Your task to perform on an android device: Search for "apple airpods pro" on walmart, select the first entry, add it to the cart, then select checkout. Image 0: 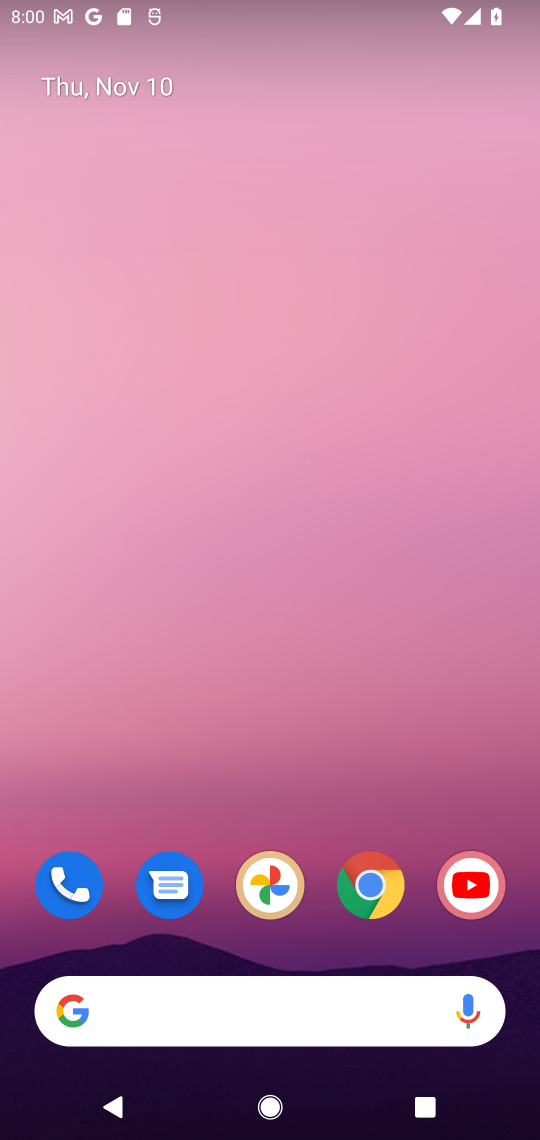
Step 0: click (377, 872)
Your task to perform on an android device: Search for "apple airpods pro" on walmart, select the first entry, add it to the cart, then select checkout. Image 1: 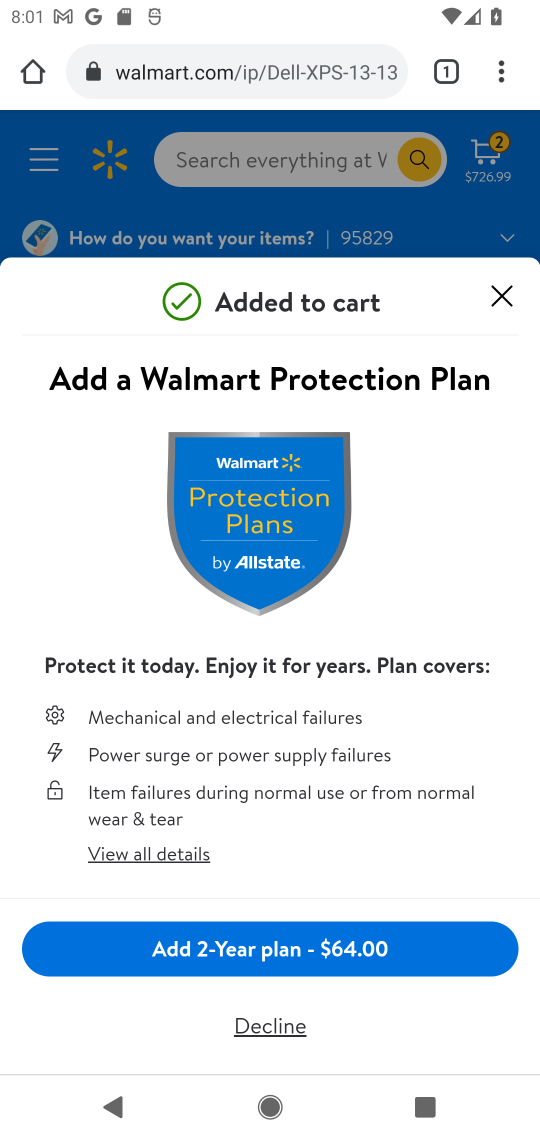
Step 1: click (501, 290)
Your task to perform on an android device: Search for "apple airpods pro" on walmart, select the first entry, add it to the cart, then select checkout. Image 2: 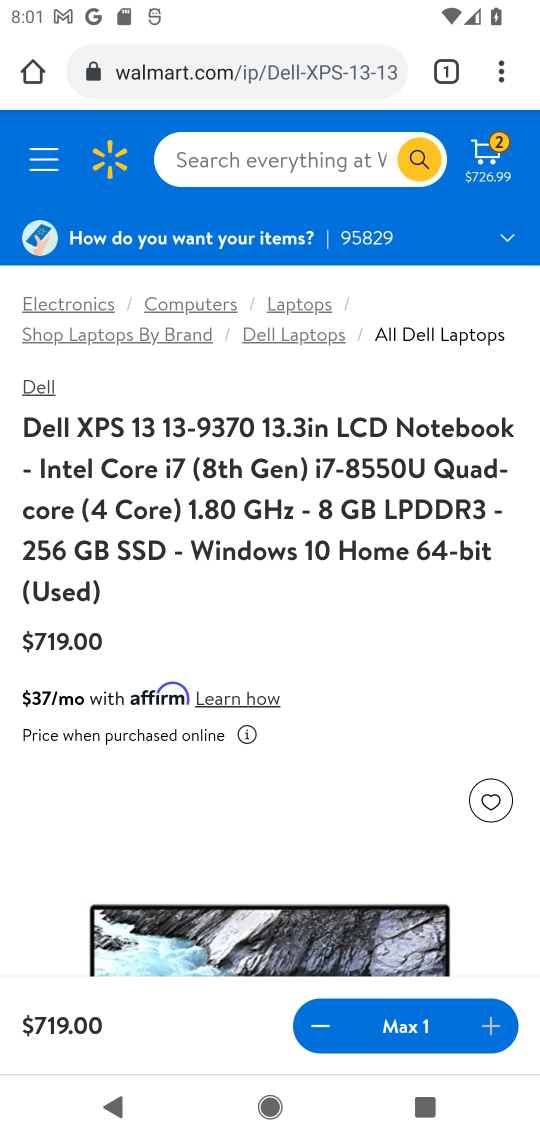
Step 2: click (330, 149)
Your task to perform on an android device: Search for "apple airpods pro" on walmart, select the first entry, add it to the cart, then select checkout. Image 3: 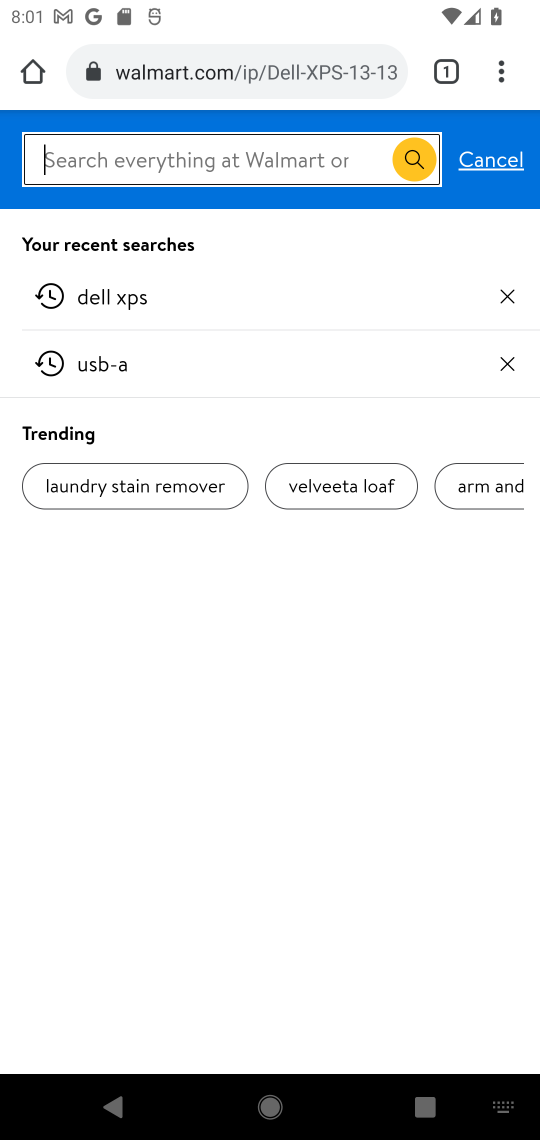
Step 3: press enter
Your task to perform on an android device: Search for "apple airpods pro" on walmart, select the first entry, add it to the cart, then select checkout. Image 4: 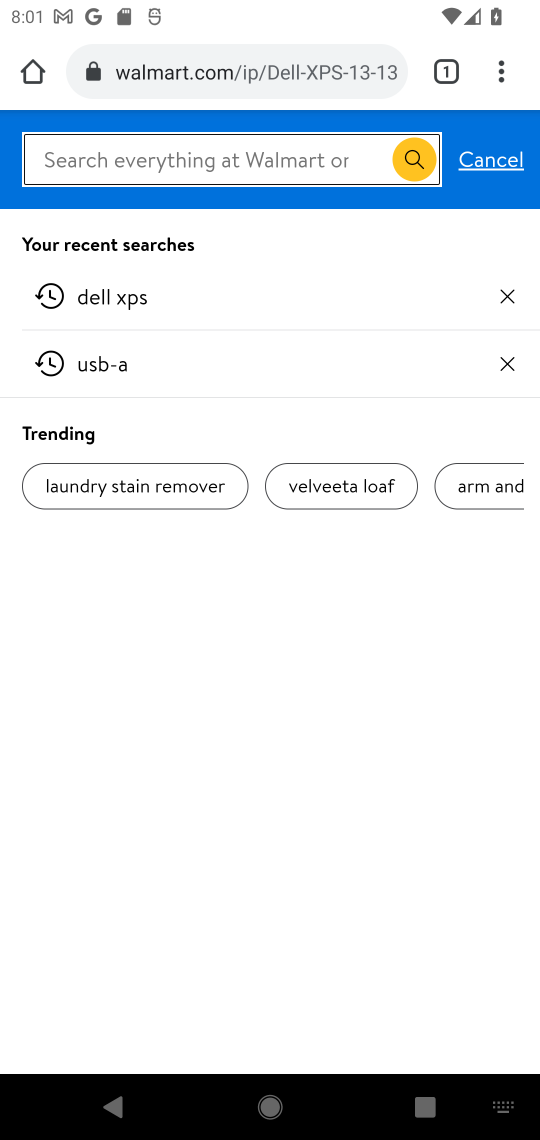
Step 4: type "apple airpods pro"
Your task to perform on an android device: Search for "apple airpods pro" on walmart, select the first entry, add it to the cart, then select checkout. Image 5: 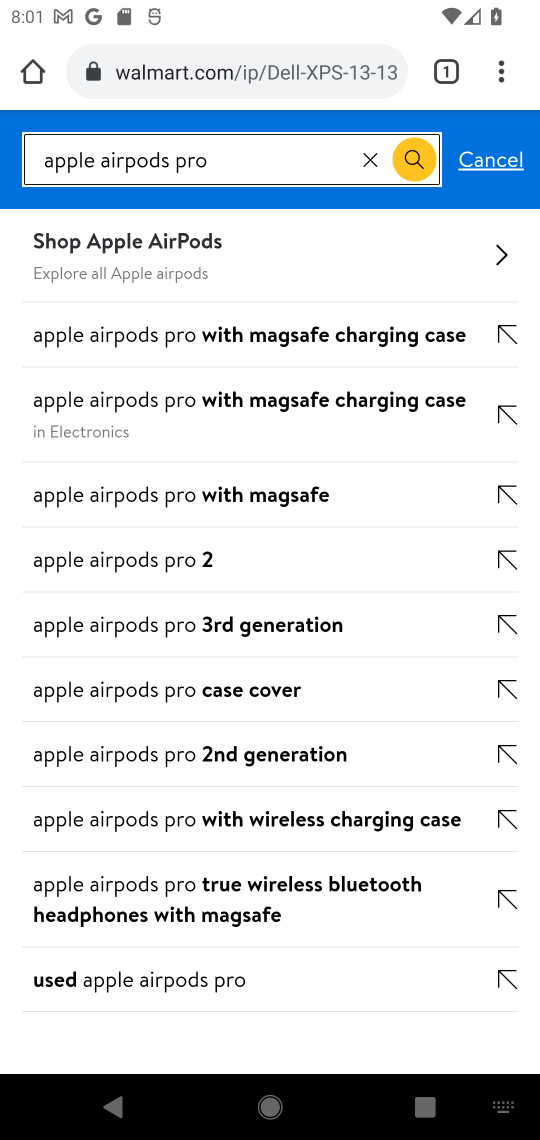
Step 5: click (160, 566)
Your task to perform on an android device: Search for "apple airpods pro" on walmart, select the first entry, add it to the cart, then select checkout. Image 6: 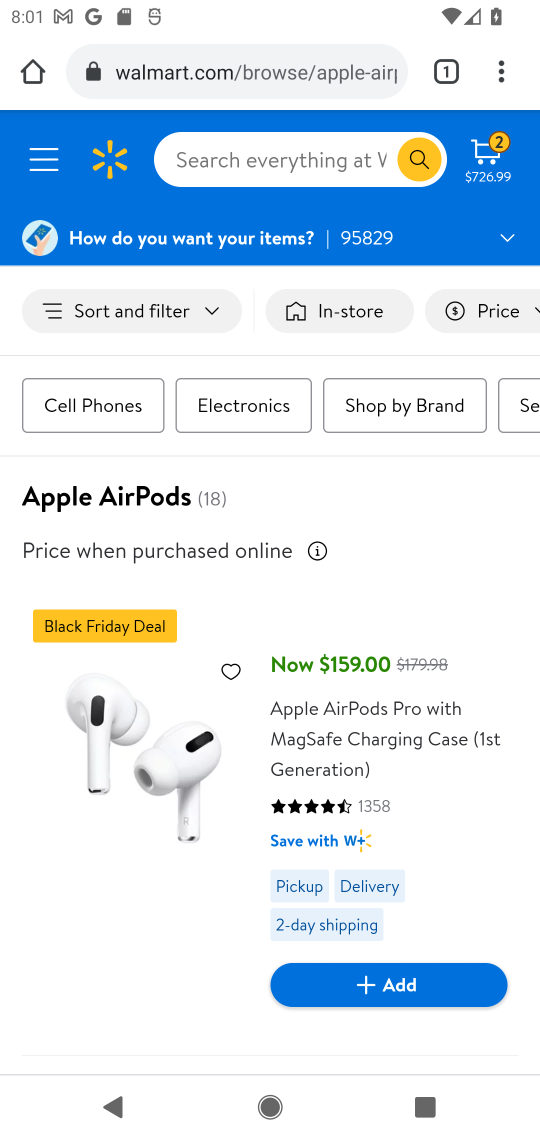
Step 6: click (148, 775)
Your task to perform on an android device: Search for "apple airpods pro" on walmart, select the first entry, add it to the cart, then select checkout. Image 7: 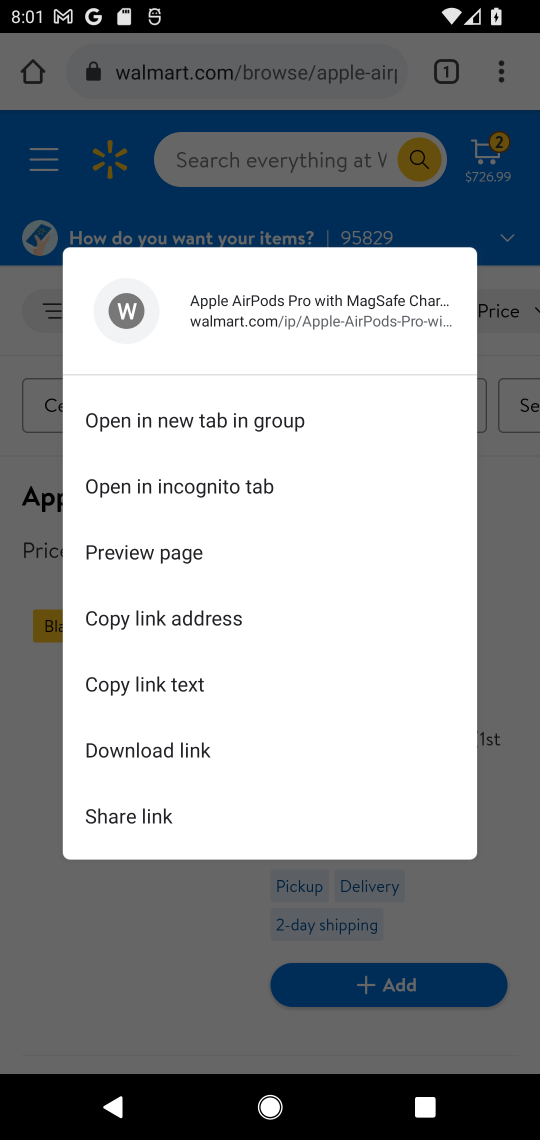
Step 7: click (49, 695)
Your task to perform on an android device: Search for "apple airpods pro" on walmart, select the first entry, add it to the cart, then select checkout. Image 8: 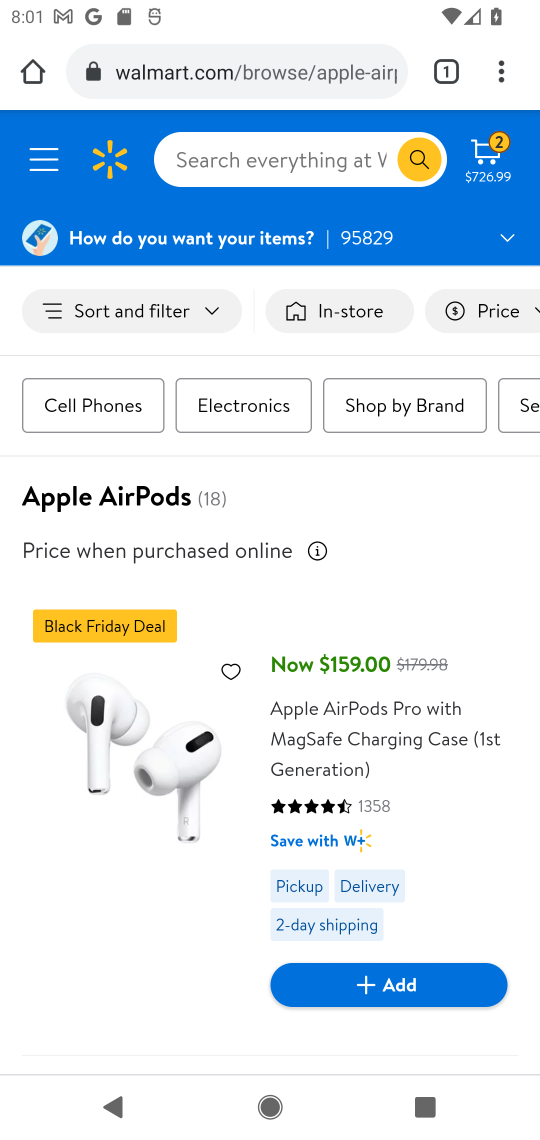
Step 8: click (115, 711)
Your task to perform on an android device: Search for "apple airpods pro" on walmart, select the first entry, add it to the cart, then select checkout. Image 9: 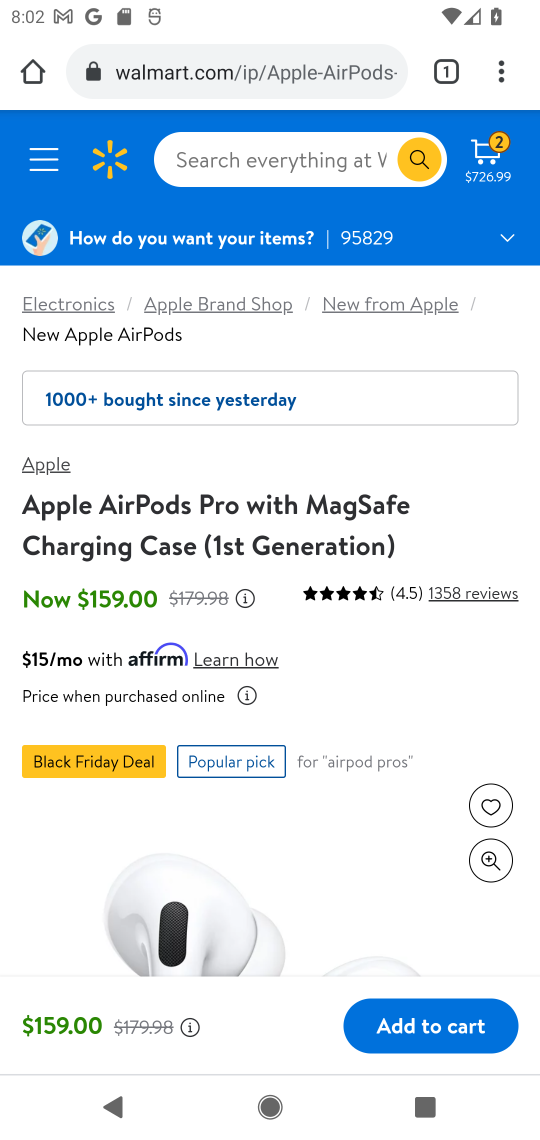
Step 9: click (418, 1019)
Your task to perform on an android device: Search for "apple airpods pro" on walmart, select the first entry, add it to the cart, then select checkout. Image 10: 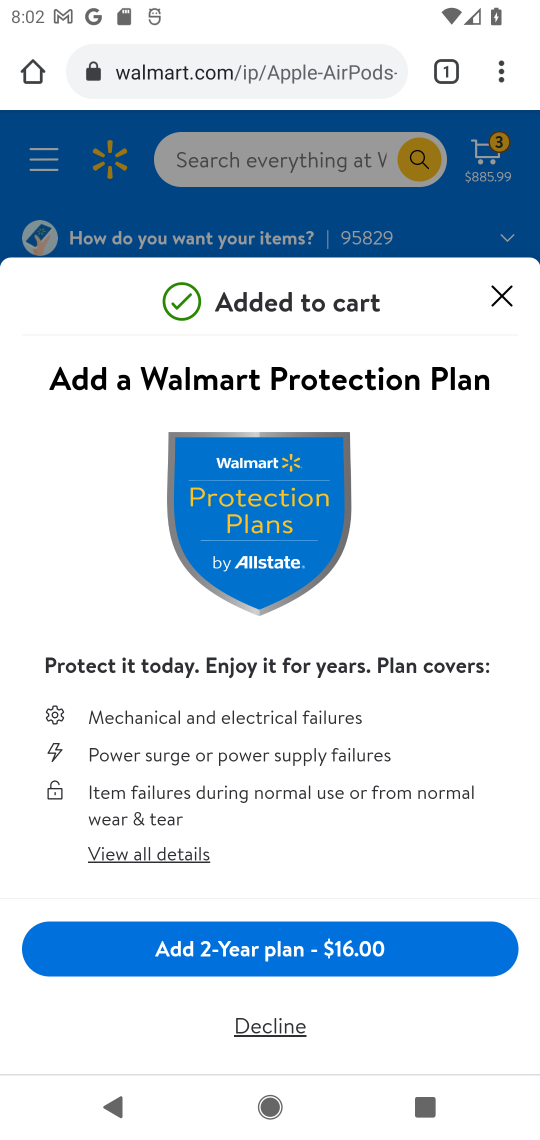
Step 10: click (502, 300)
Your task to perform on an android device: Search for "apple airpods pro" on walmart, select the first entry, add it to the cart, then select checkout. Image 11: 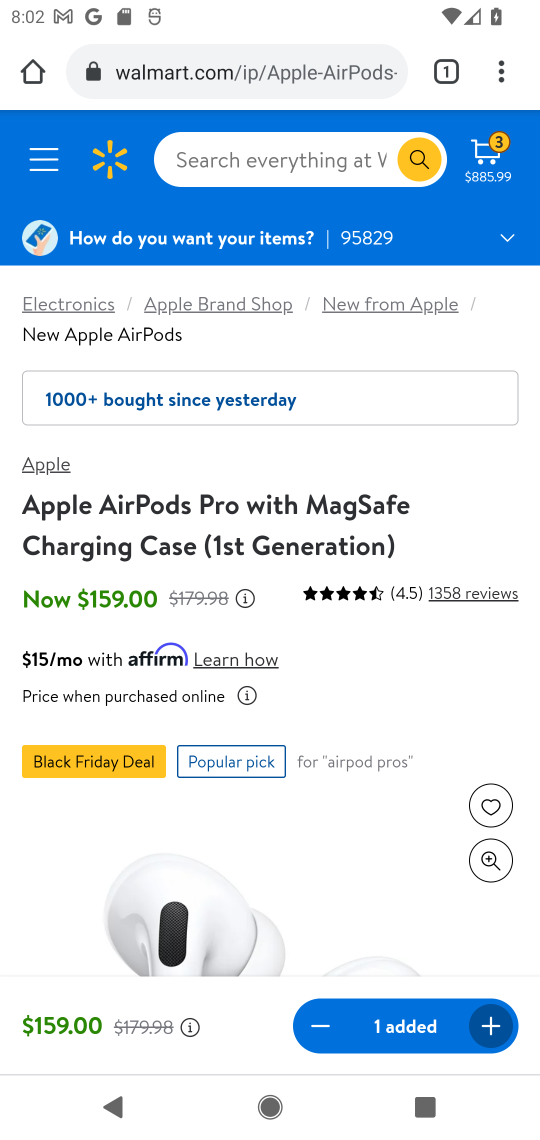
Step 11: click (489, 151)
Your task to perform on an android device: Search for "apple airpods pro" on walmart, select the first entry, add it to the cart, then select checkout. Image 12: 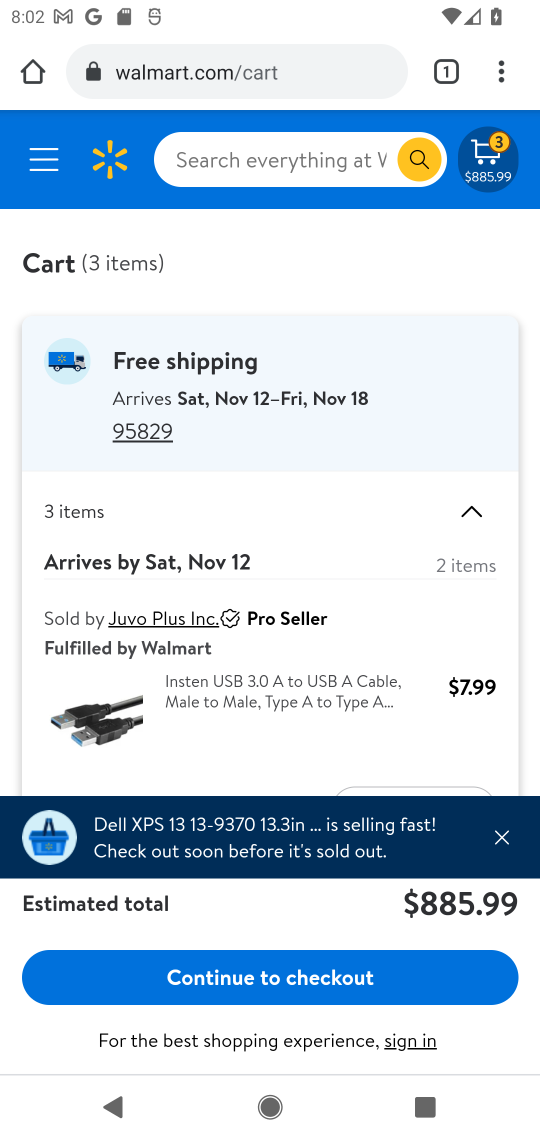
Step 12: drag from (413, 537) to (453, 271)
Your task to perform on an android device: Search for "apple airpods pro" on walmart, select the first entry, add it to the cart, then select checkout. Image 13: 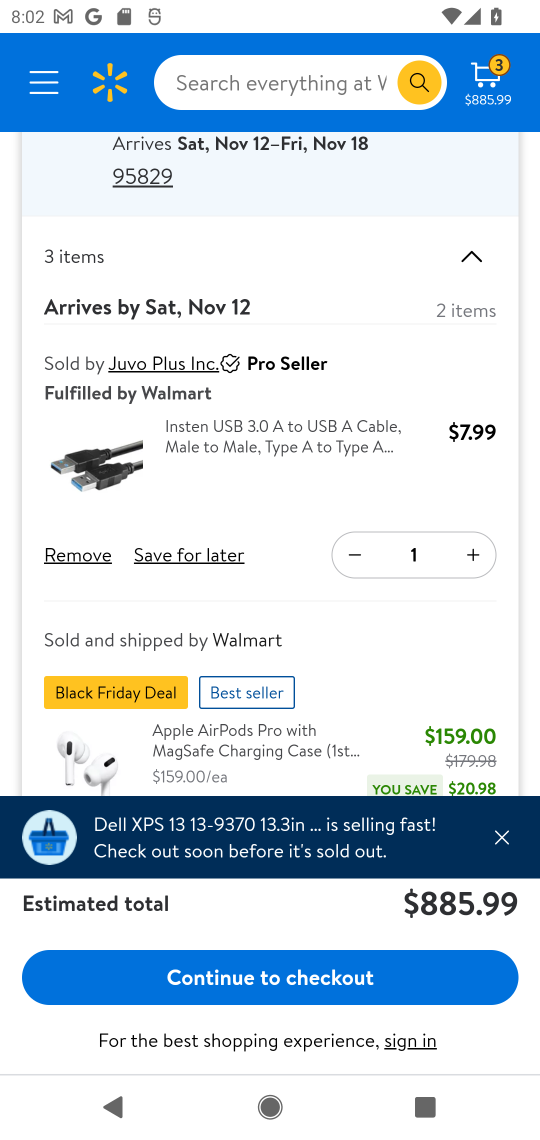
Step 13: click (331, 893)
Your task to perform on an android device: Search for "apple airpods pro" on walmart, select the first entry, add it to the cart, then select checkout. Image 14: 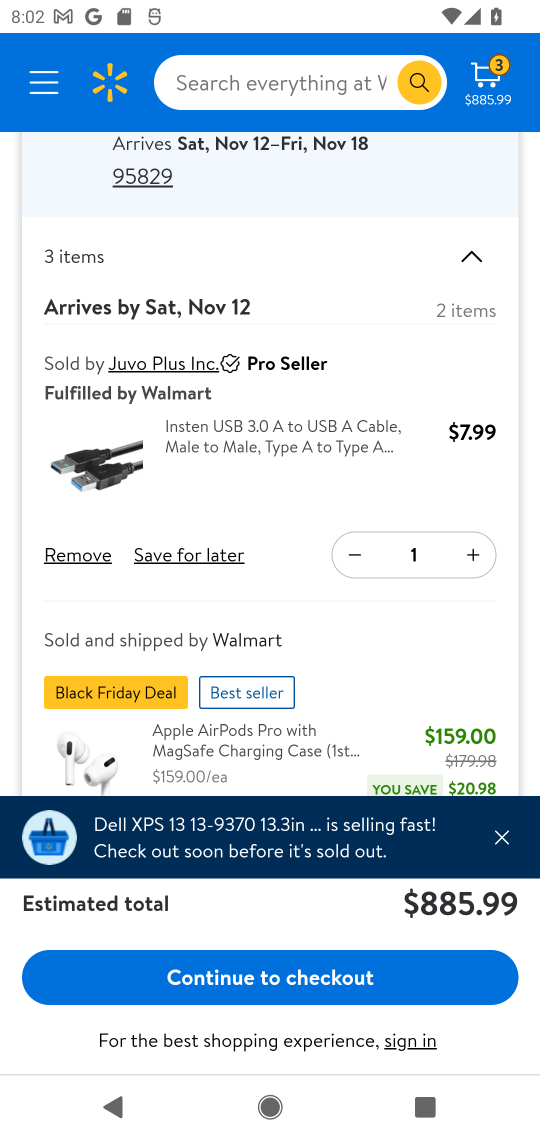
Step 14: click (341, 978)
Your task to perform on an android device: Search for "apple airpods pro" on walmart, select the first entry, add it to the cart, then select checkout. Image 15: 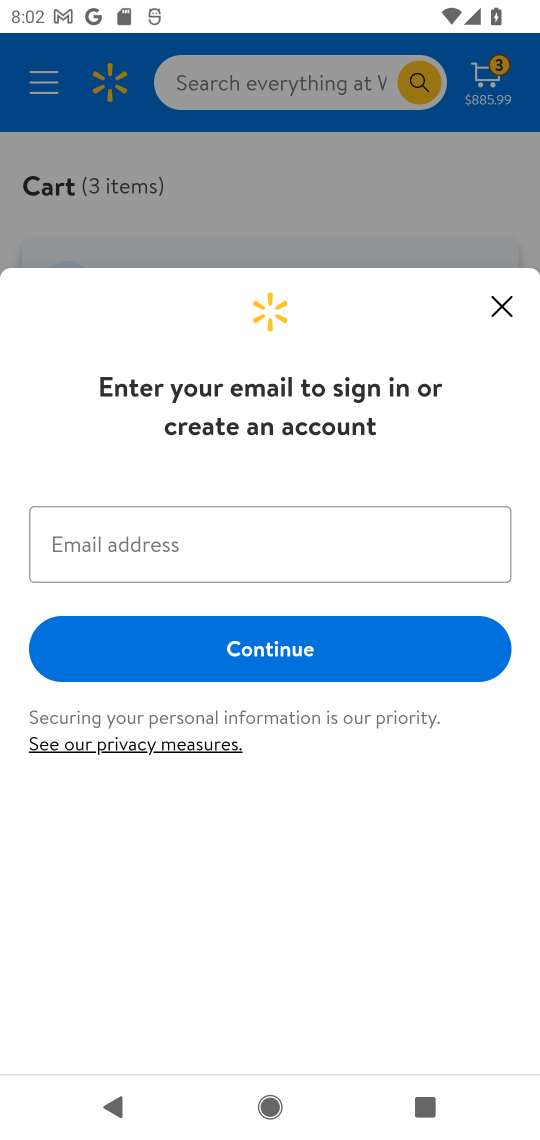
Step 15: task complete